Your task to perform on an android device: turn notification dots off Image 0: 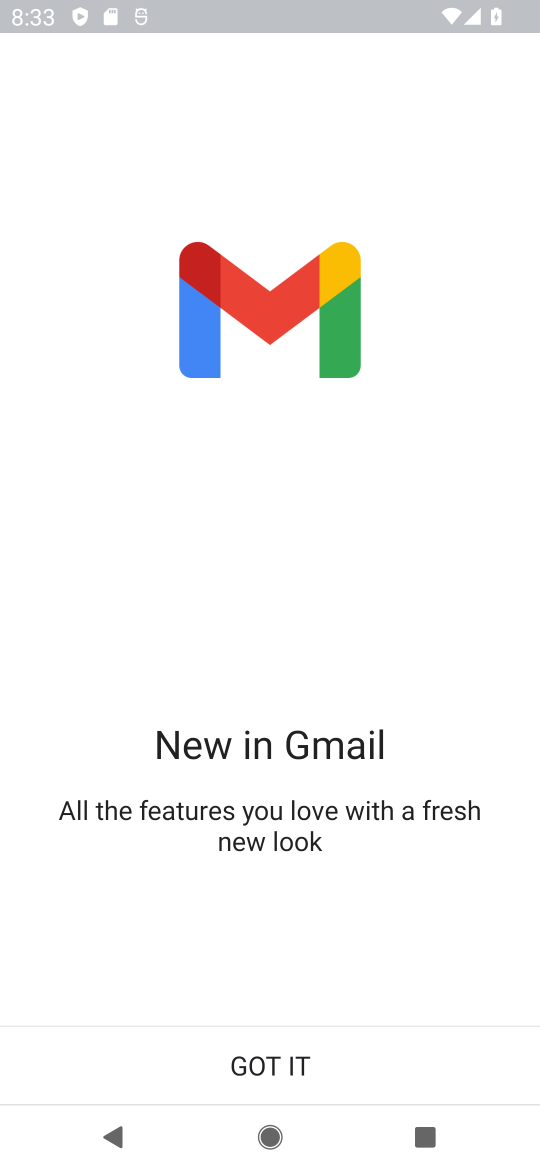
Step 0: press home button
Your task to perform on an android device: turn notification dots off Image 1: 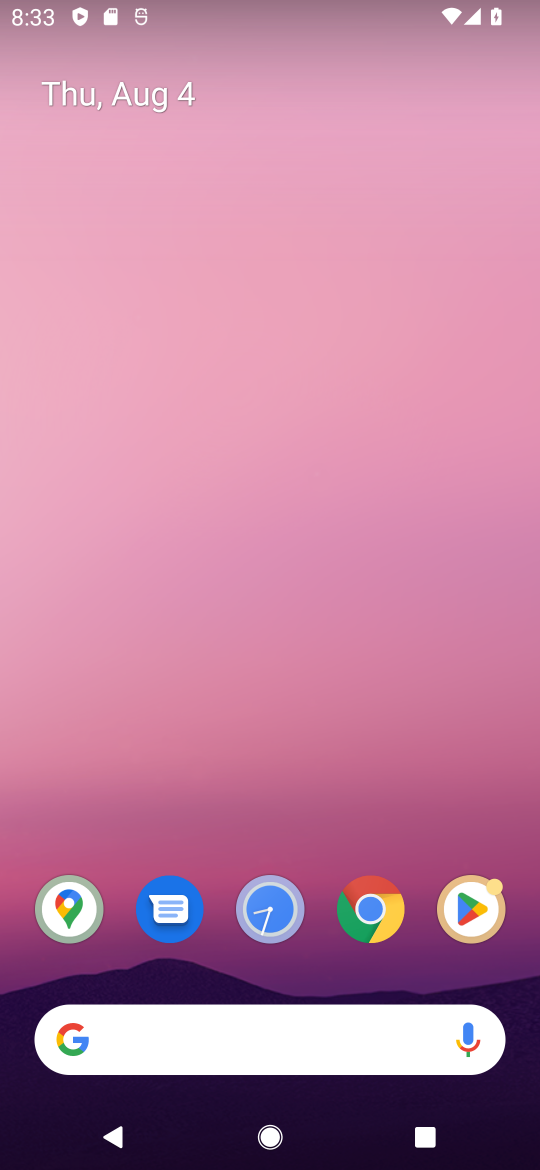
Step 1: drag from (222, 827) to (199, 294)
Your task to perform on an android device: turn notification dots off Image 2: 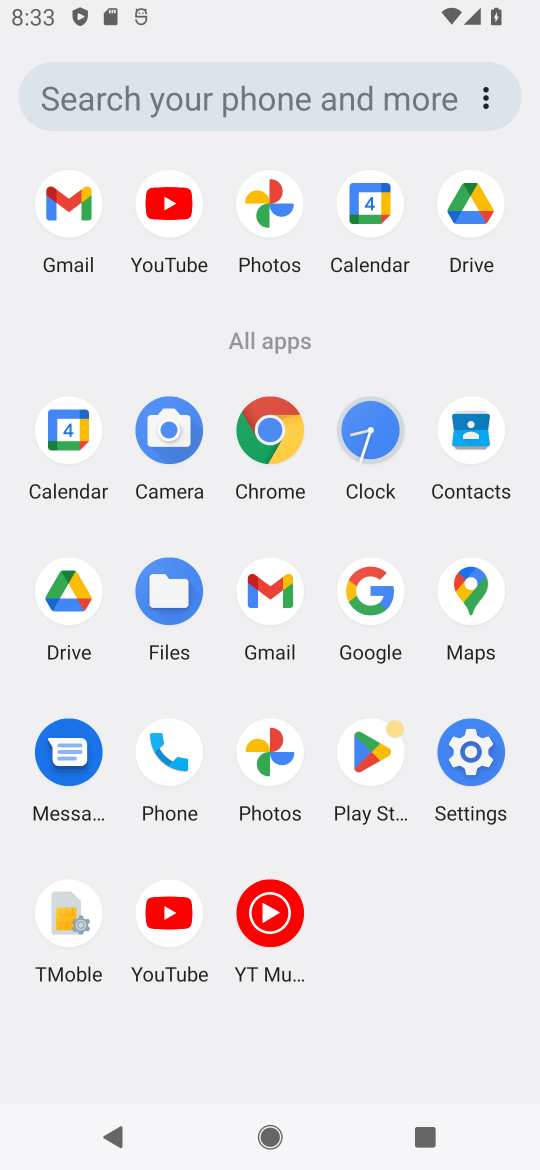
Step 2: click (474, 744)
Your task to perform on an android device: turn notification dots off Image 3: 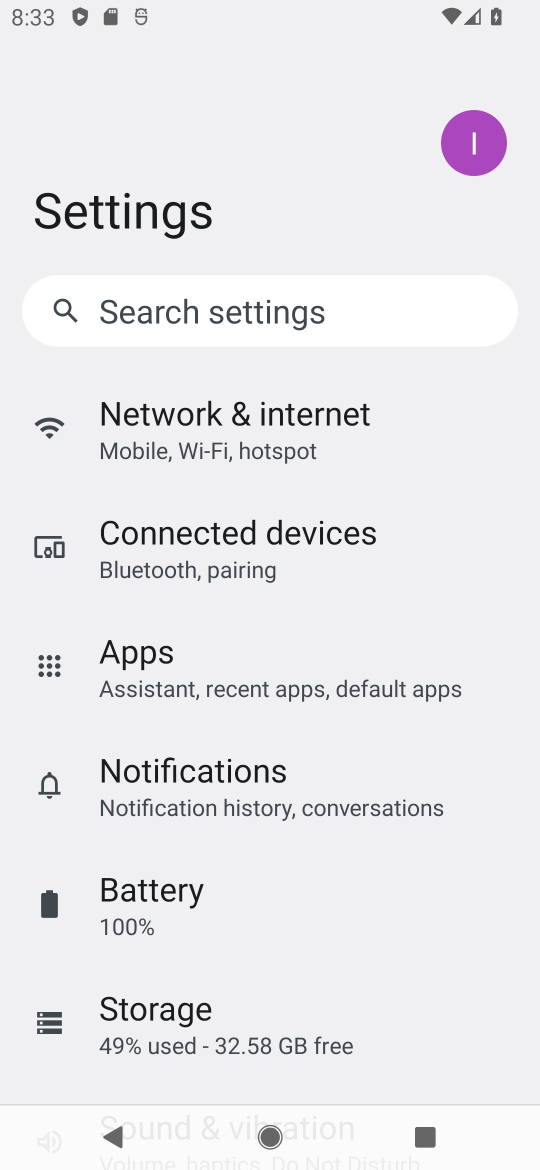
Step 3: drag from (417, 965) to (466, 707)
Your task to perform on an android device: turn notification dots off Image 4: 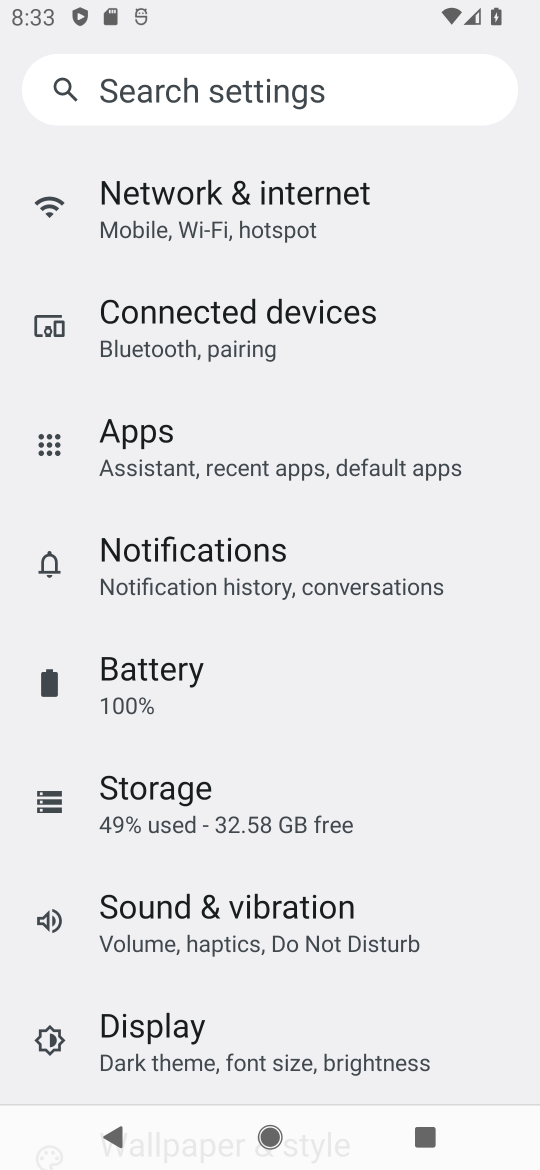
Step 4: drag from (450, 870) to (457, 529)
Your task to perform on an android device: turn notification dots off Image 5: 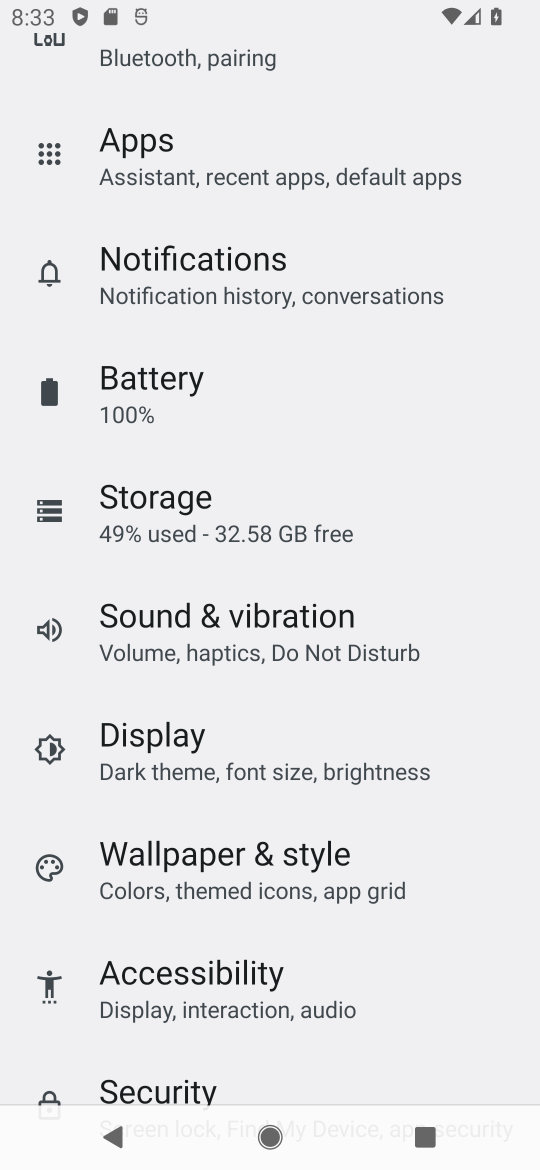
Step 5: drag from (480, 929) to (462, 684)
Your task to perform on an android device: turn notification dots off Image 6: 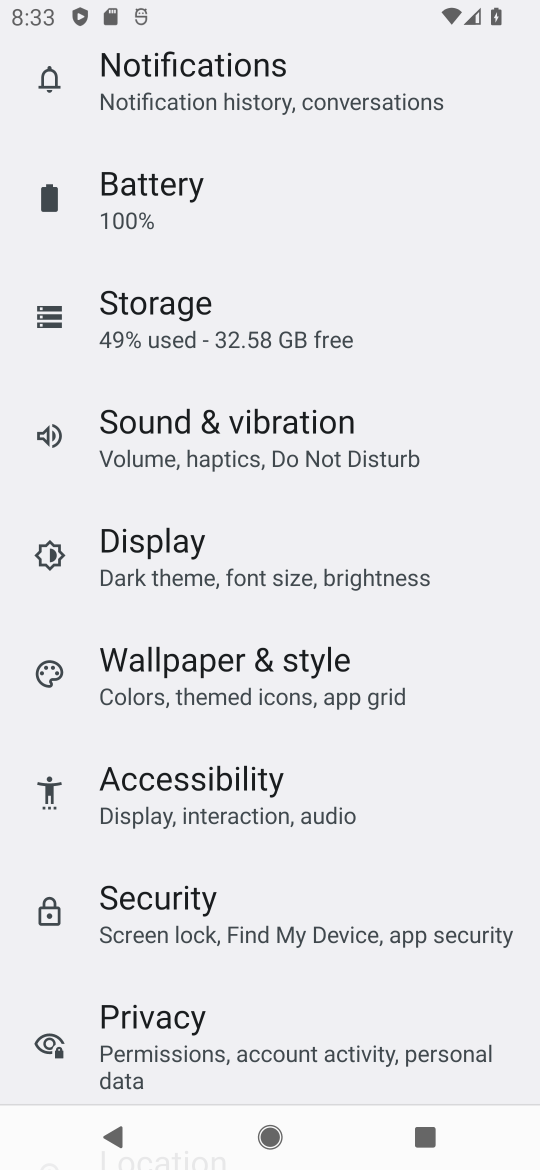
Step 6: drag from (454, 960) to (457, 637)
Your task to perform on an android device: turn notification dots off Image 7: 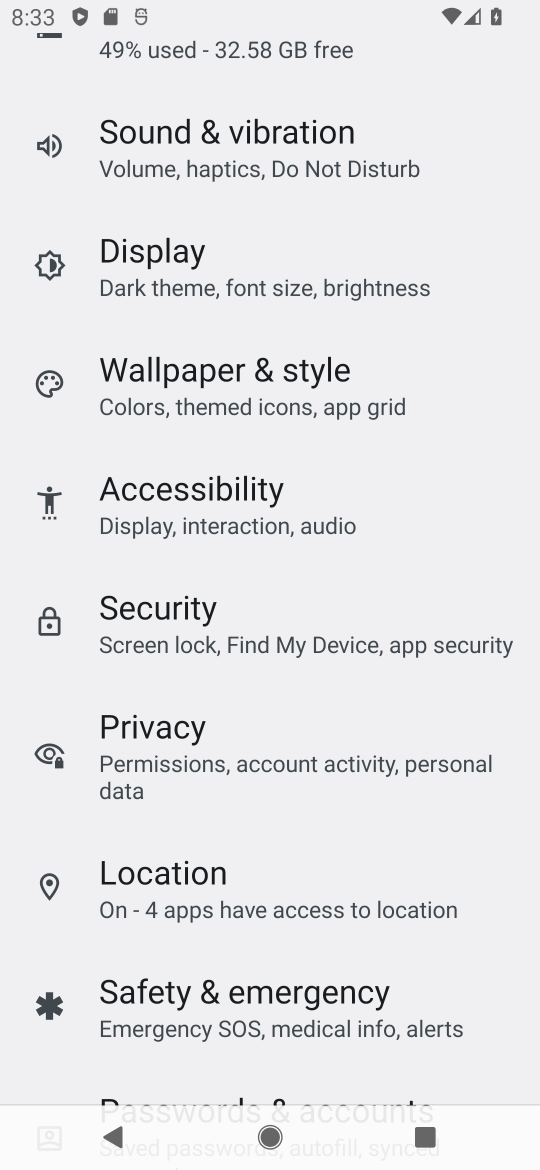
Step 7: drag from (462, 964) to (462, 675)
Your task to perform on an android device: turn notification dots off Image 8: 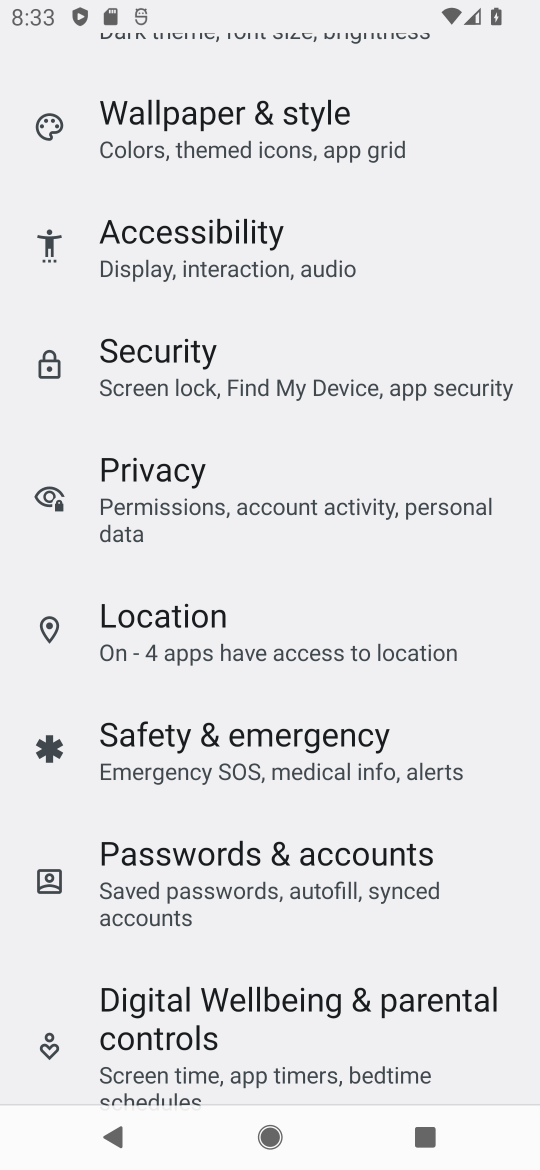
Step 8: drag from (469, 1042) to (466, 780)
Your task to perform on an android device: turn notification dots off Image 9: 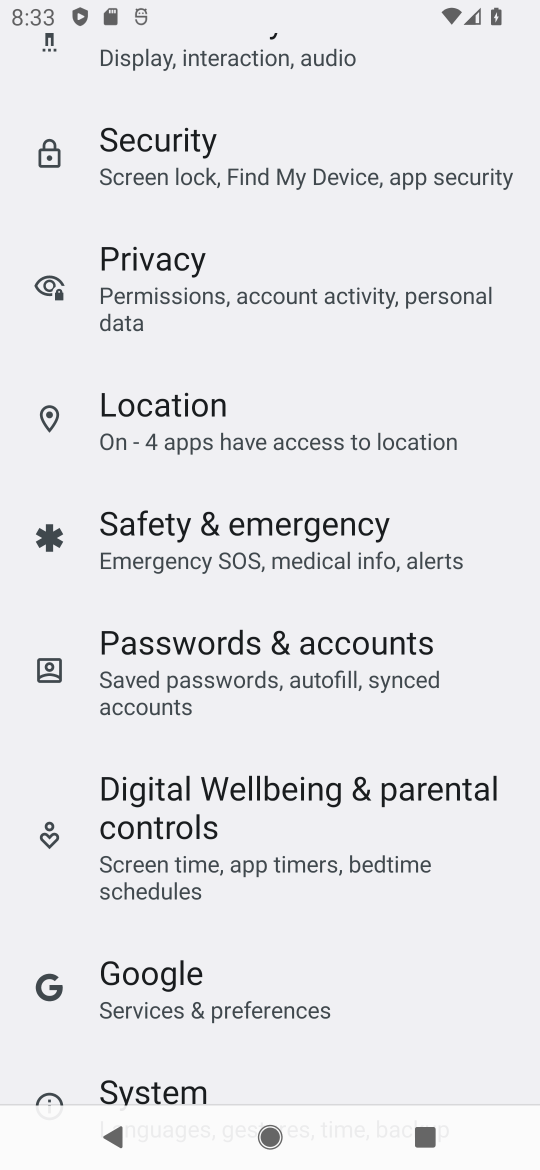
Step 9: drag from (484, 399) to (502, 682)
Your task to perform on an android device: turn notification dots off Image 10: 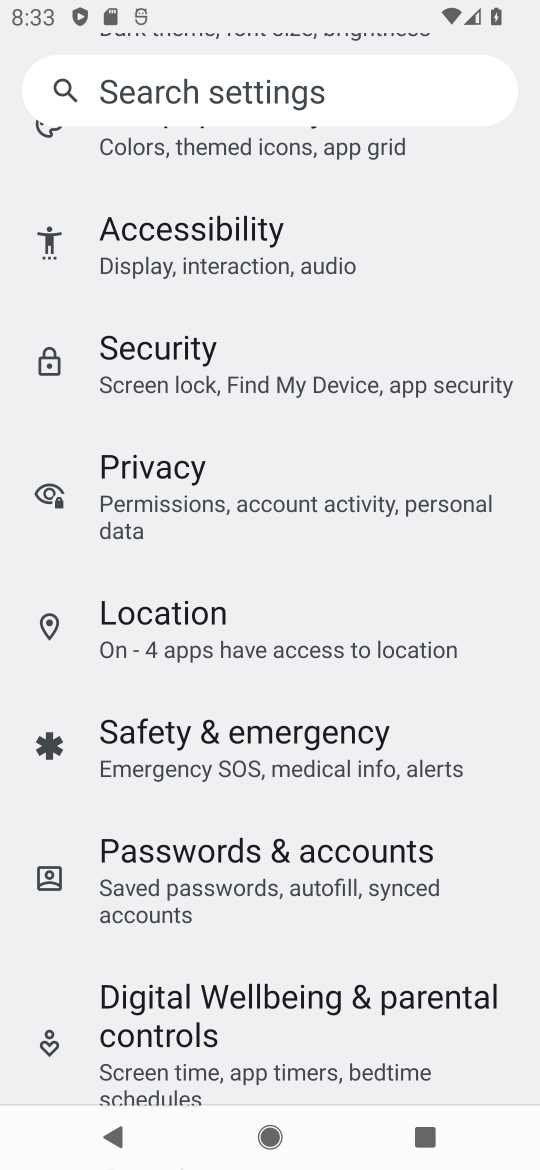
Step 10: drag from (487, 247) to (486, 539)
Your task to perform on an android device: turn notification dots off Image 11: 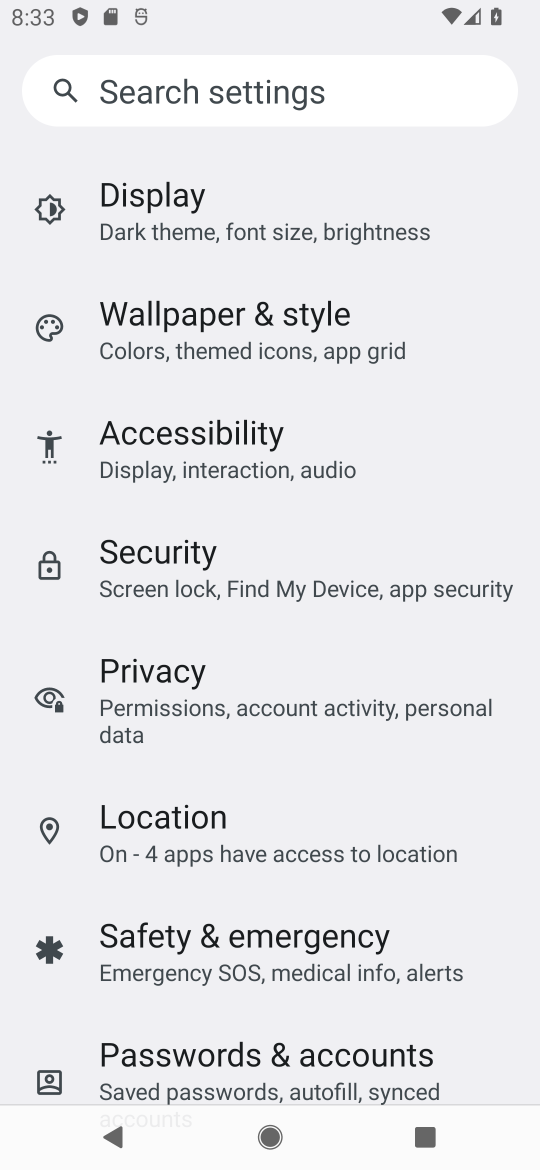
Step 11: drag from (466, 270) to (470, 502)
Your task to perform on an android device: turn notification dots off Image 12: 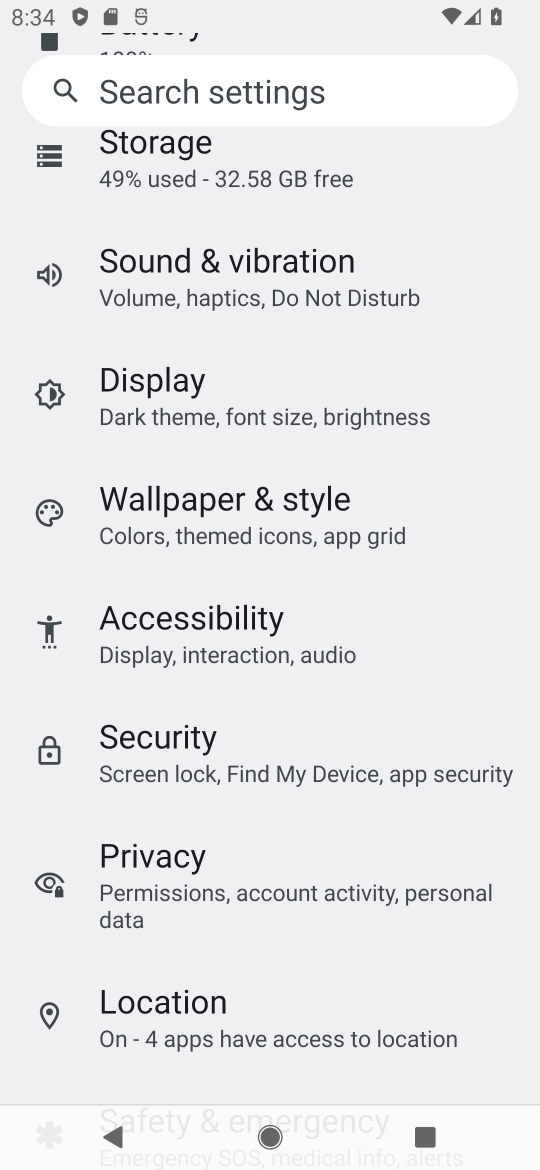
Step 12: drag from (470, 210) to (477, 458)
Your task to perform on an android device: turn notification dots off Image 13: 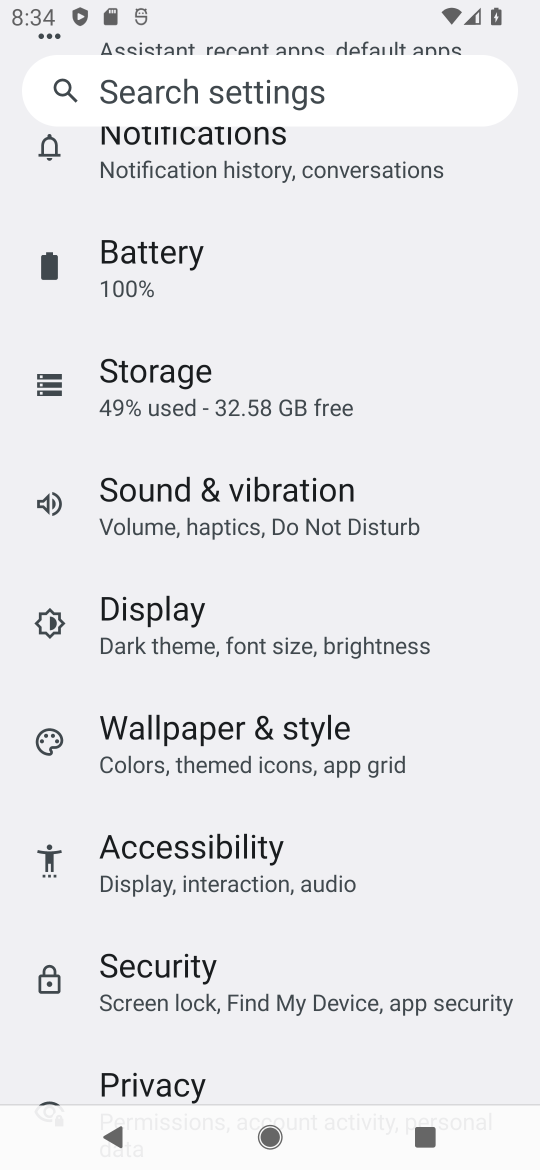
Step 13: drag from (474, 225) to (471, 457)
Your task to perform on an android device: turn notification dots off Image 14: 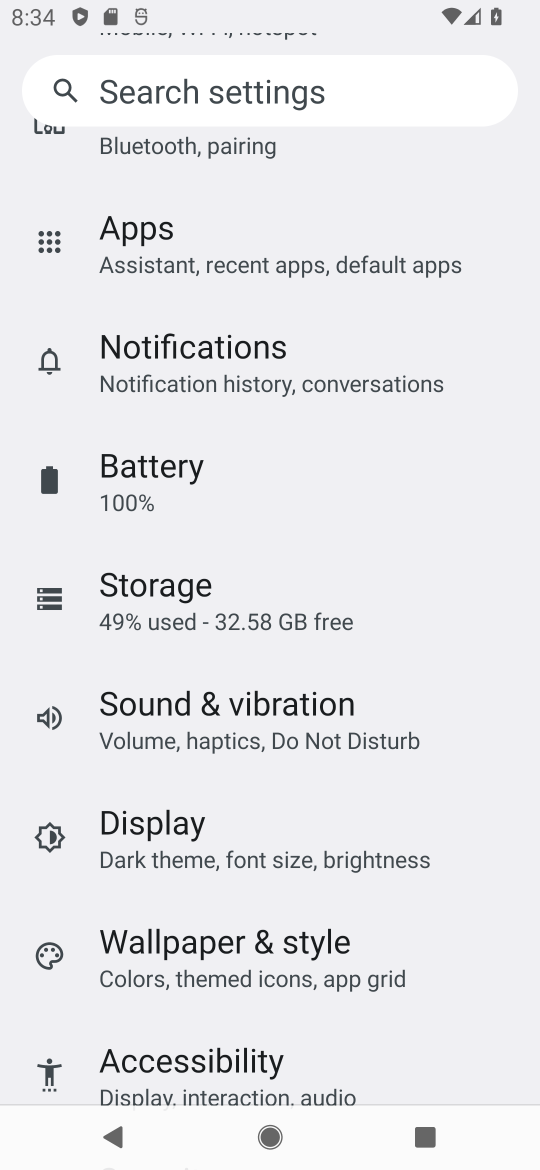
Step 14: click (330, 347)
Your task to perform on an android device: turn notification dots off Image 15: 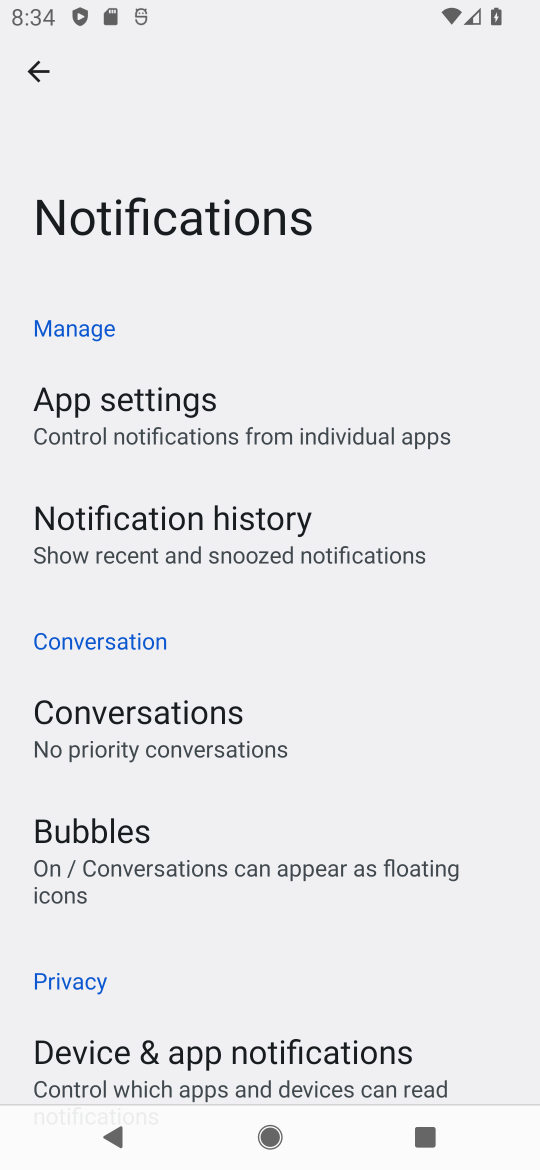
Step 15: drag from (401, 735) to (408, 518)
Your task to perform on an android device: turn notification dots off Image 16: 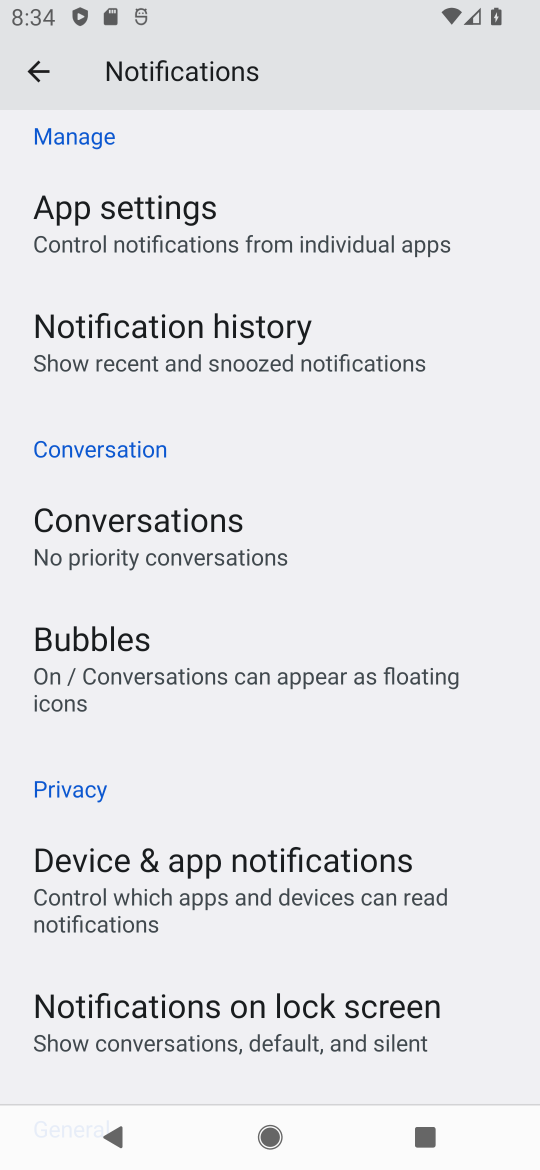
Step 16: drag from (434, 903) to (440, 669)
Your task to perform on an android device: turn notification dots off Image 17: 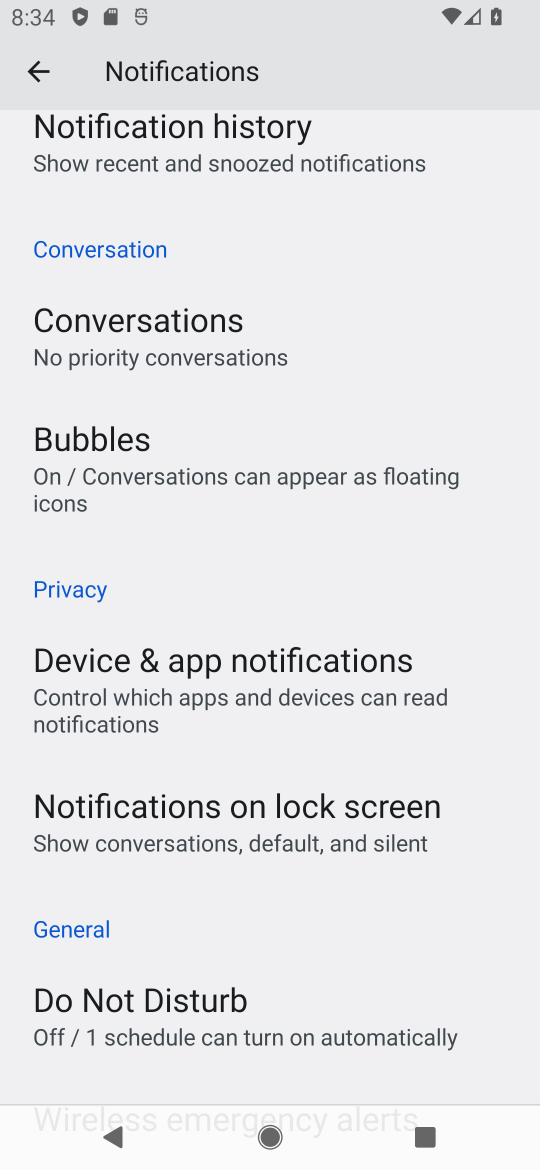
Step 17: drag from (457, 930) to (458, 671)
Your task to perform on an android device: turn notification dots off Image 18: 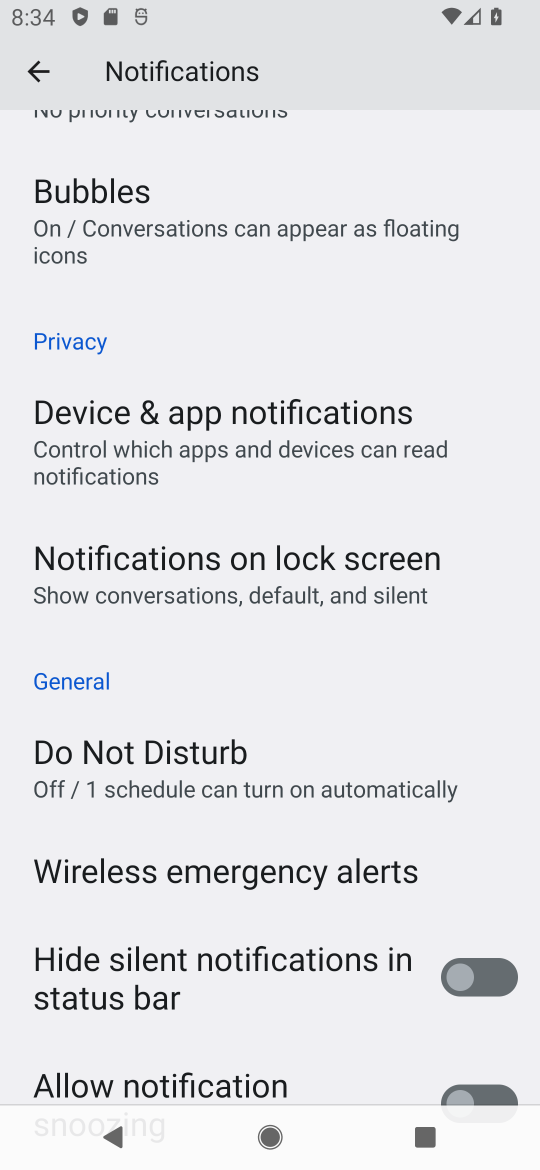
Step 18: drag from (353, 1000) to (356, 712)
Your task to perform on an android device: turn notification dots off Image 19: 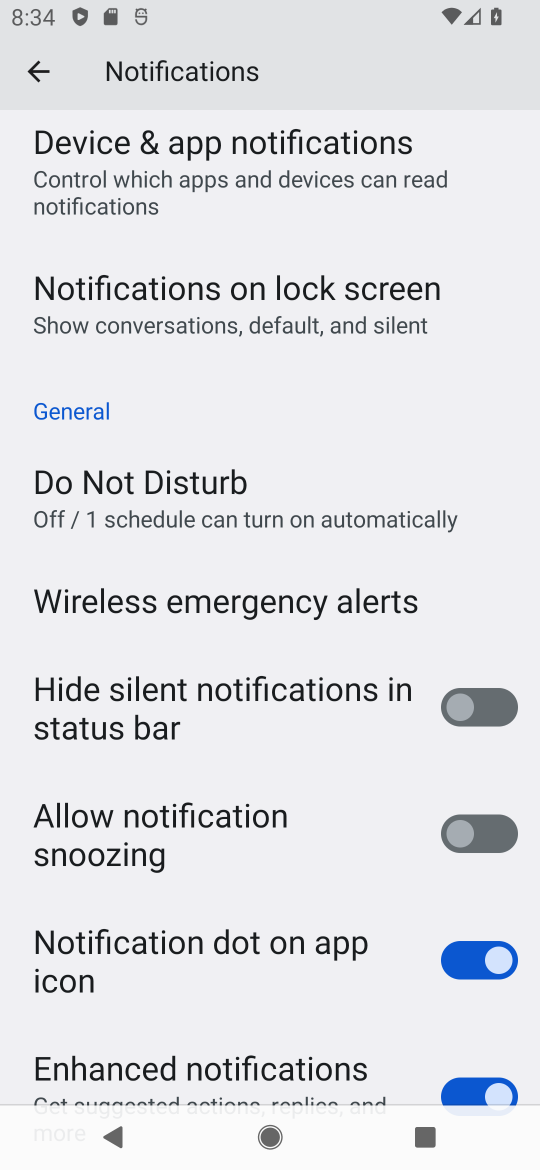
Step 19: drag from (356, 884) to (356, 717)
Your task to perform on an android device: turn notification dots off Image 20: 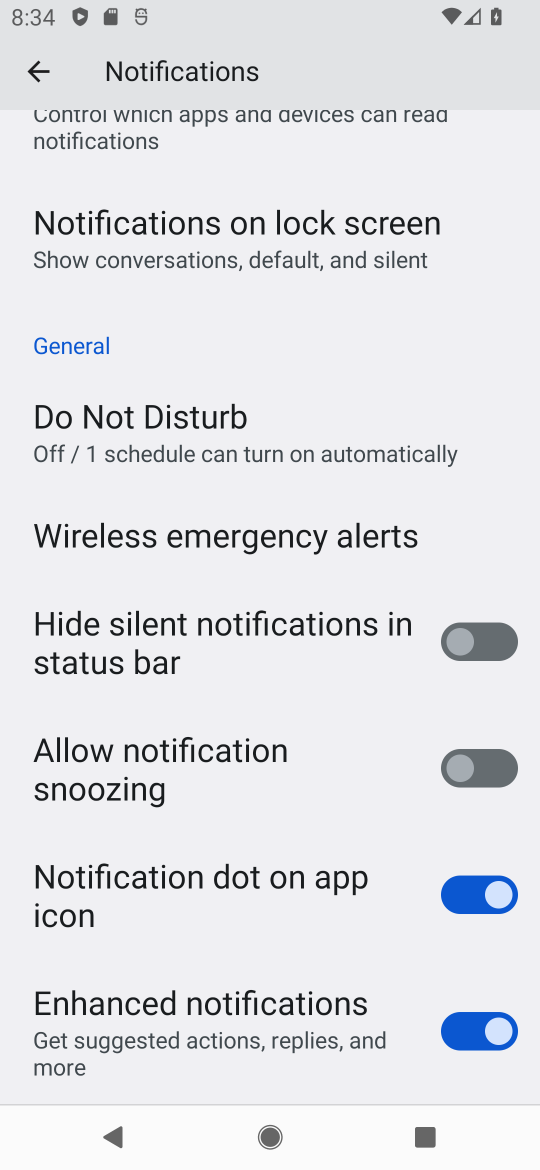
Step 20: click (464, 909)
Your task to perform on an android device: turn notification dots off Image 21: 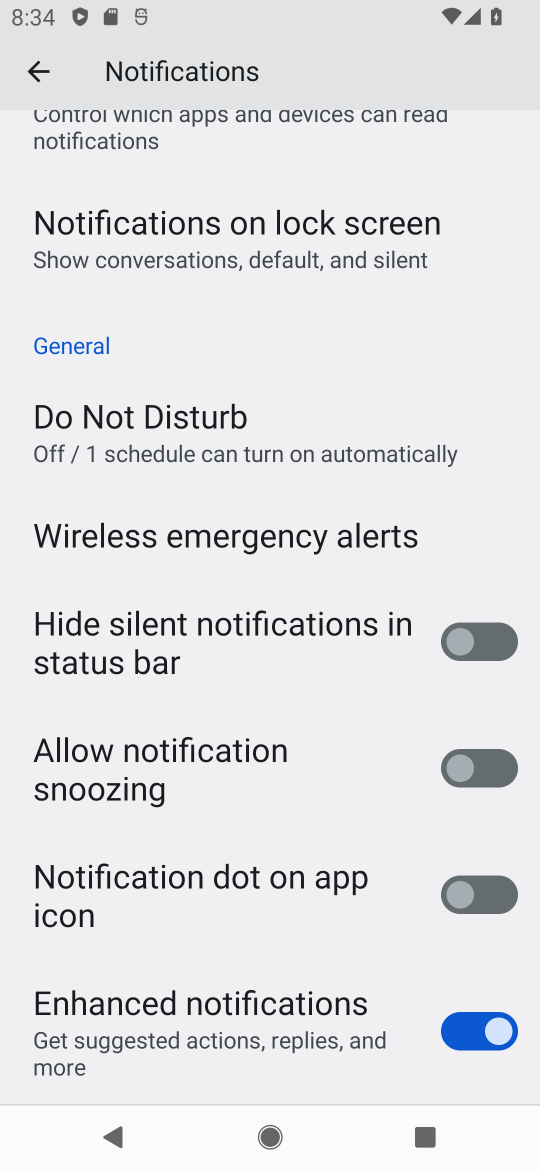
Step 21: task complete